Your task to perform on an android device: turn on wifi Image 0: 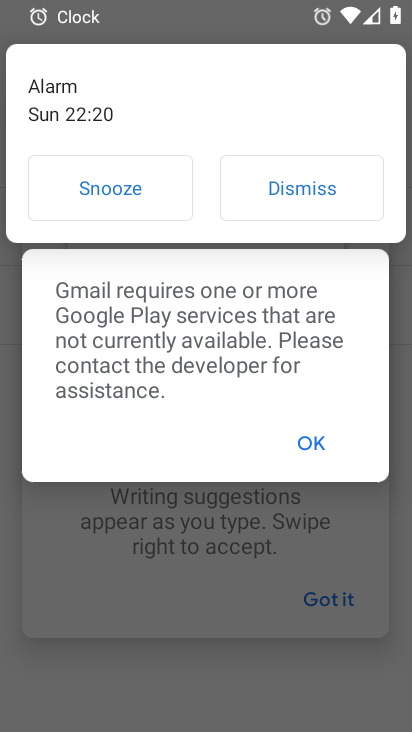
Step 0: press home button
Your task to perform on an android device: turn on wifi Image 1: 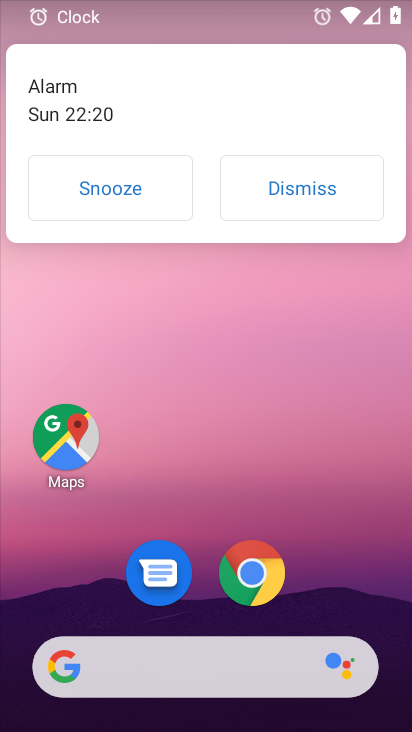
Step 1: click (298, 188)
Your task to perform on an android device: turn on wifi Image 2: 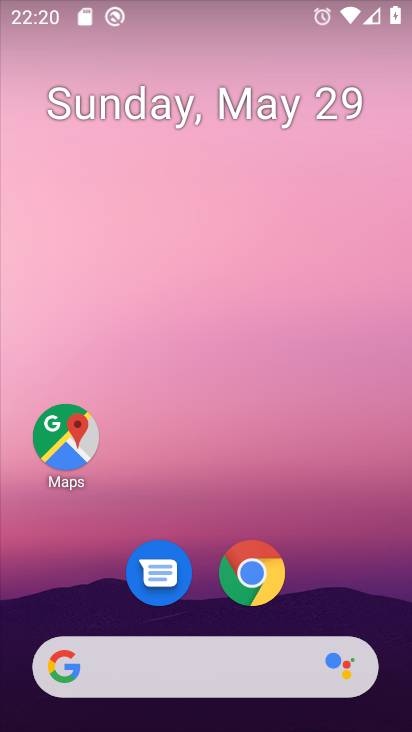
Step 2: drag from (217, 465) to (208, 28)
Your task to perform on an android device: turn on wifi Image 3: 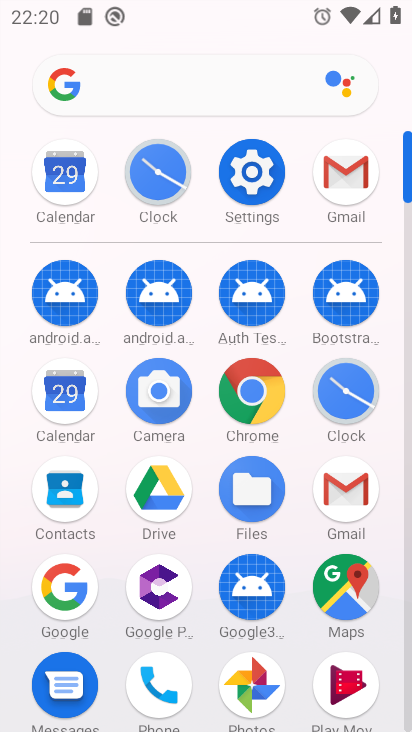
Step 3: click (249, 163)
Your task to perform on an android device: turn on wifi Image 4: 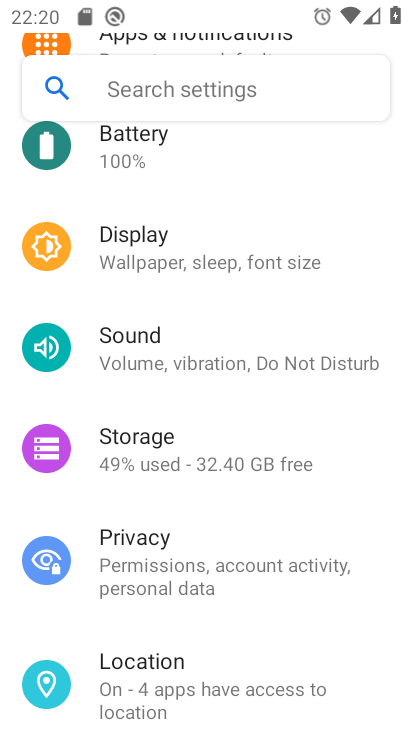
Step 4: drag from (248, 179) to (224, 641)
Your task to perform on an android device: turn on wifi Image 5: 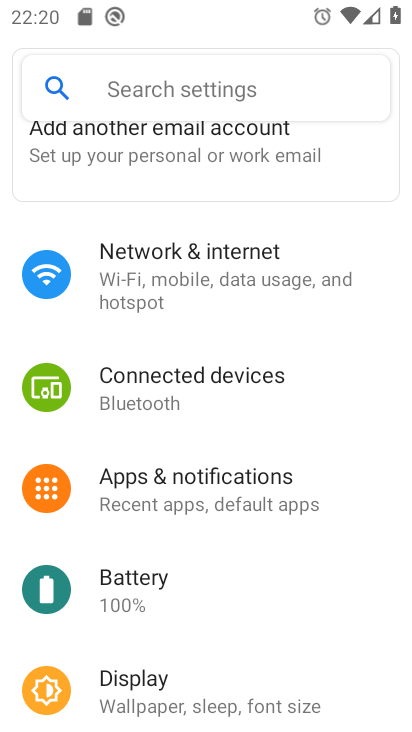
Step 5: click (234, 280)
Your task to perform on an android device: turn on wifi Image 6: 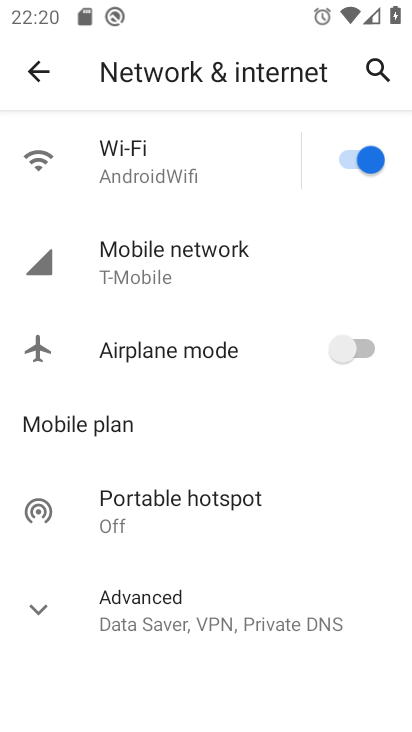
Step 6: task complete